Your task to perform on an android device: change notification settings in the gmail app Image 0: 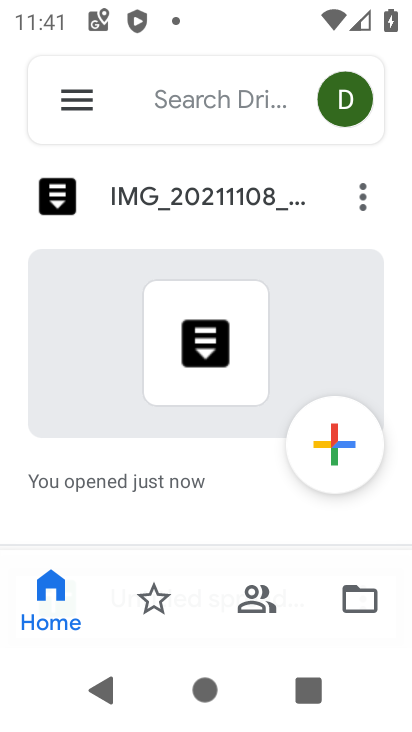
Step 0: press home button
Your task to perform on an android device: change notification settings in the gmail app Image 1: 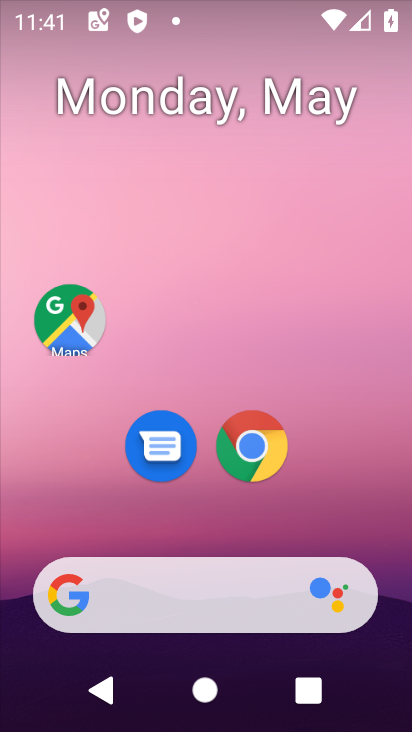
Step 1: drag from (341, 506) to (335, 183)
Your task to perform on an android device: change notification settings in the gmail app Image 2: 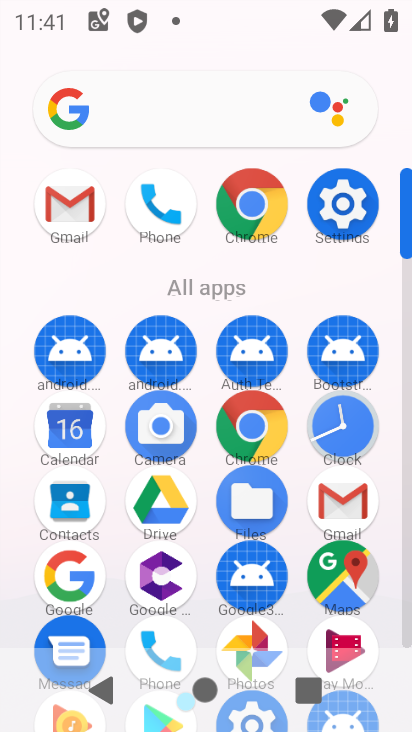
Step 2: click (334, 499)
Your task to perform on an android device: change notification settings in the gmail app Image 3: 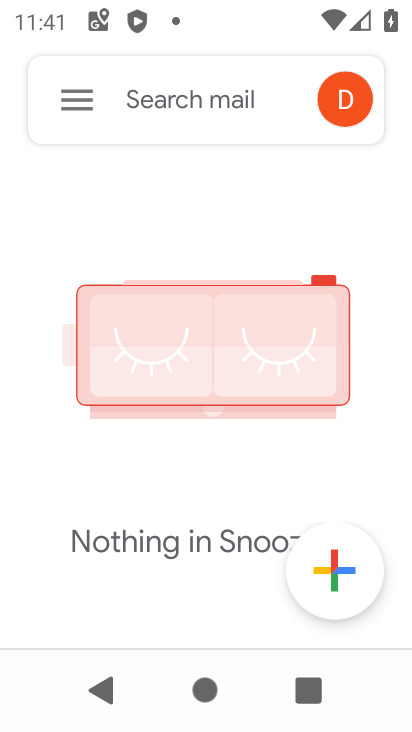
Step 3: click (74, 92)
Your task to perform on an android device: change notification settings in the gmail app Image 4: 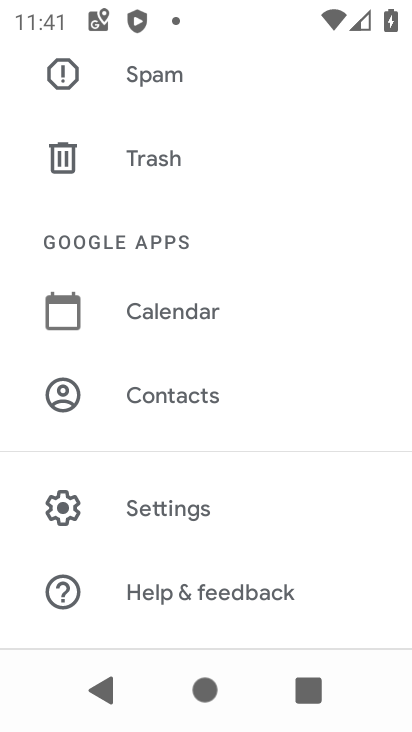
Step 4: click (189, 497)
Your task to perform on an android device: change notification settings in the gmail app Image 5: 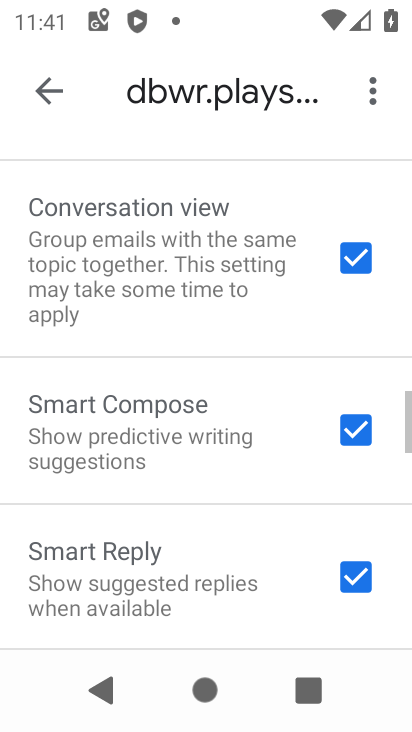
Step 5: drag from (172, 229) to (155, 642)
Your task to perform on an android device: change notification settings in the gmail app Image 6: 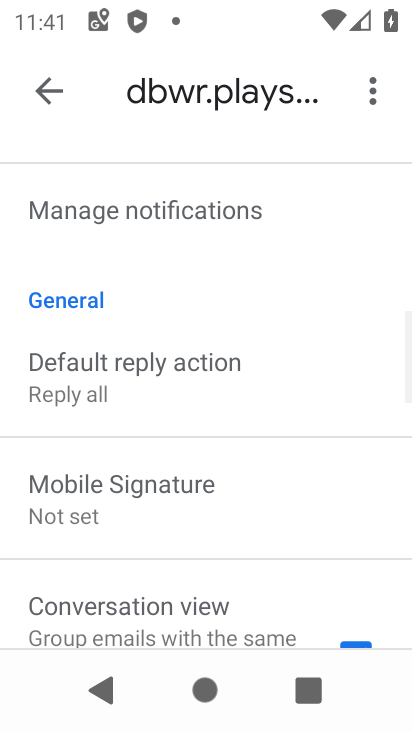
Step 6: drag from (184, 242) to (154, 515)
Your task to perform on an android device: change notification settings in the gmail app Image 7: 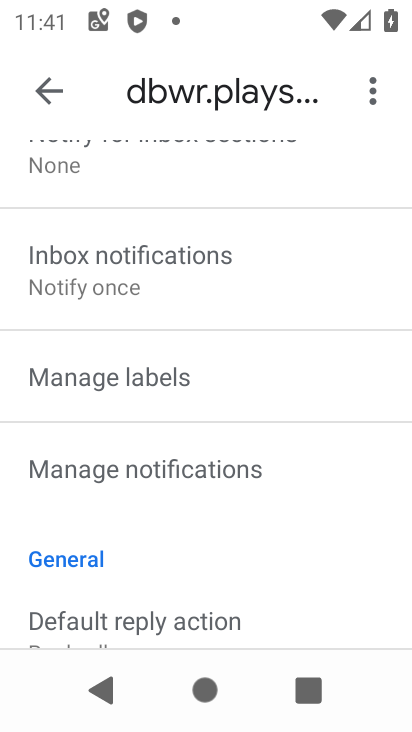
Step 7: drag from (176, 202) to (169, 446)
Your task to perform on an android device: change notification settings in the gmail app Image 8: 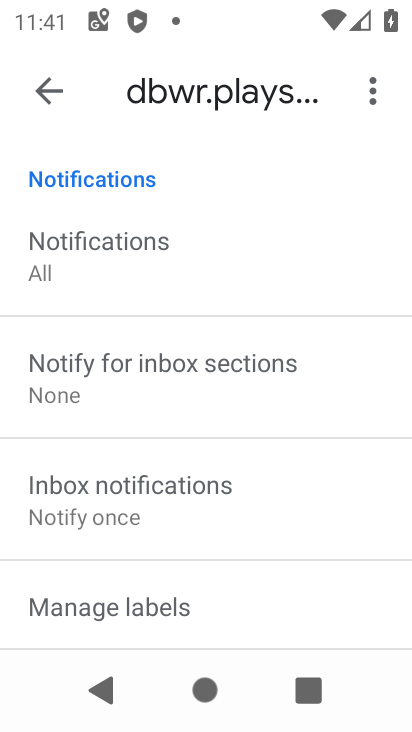
Step 8: click (133, 264)
Your task to perform on an android device: change notification settings in the gmail app Image 9: 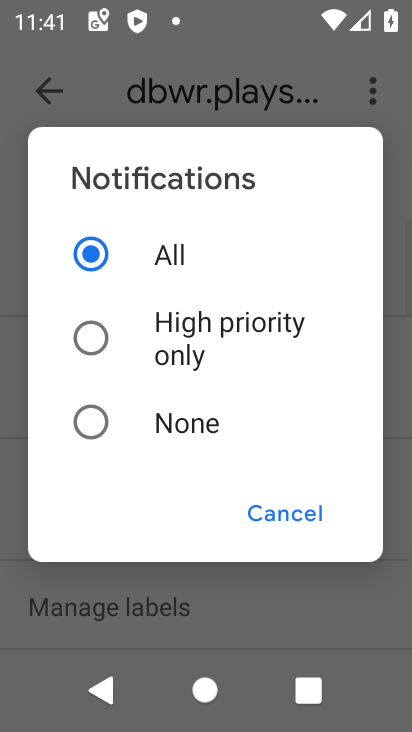
Step 9: click (135, 414)
Your task to perform on an android device: change notification settings in the gmail app Image 10: 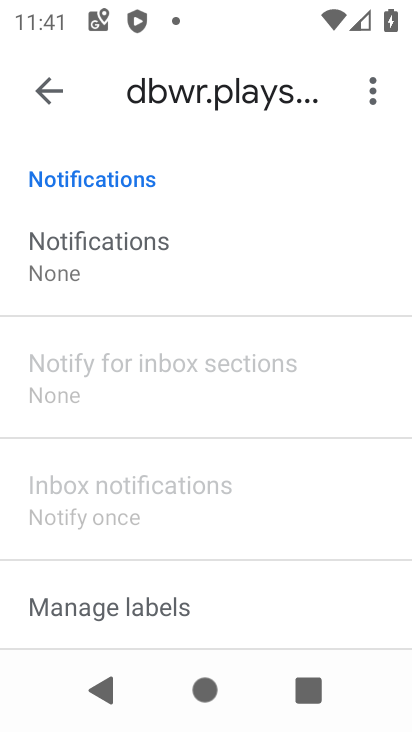
Step 10: task complete